Your task to perform on an android device: turn off sleep mode Image 0: 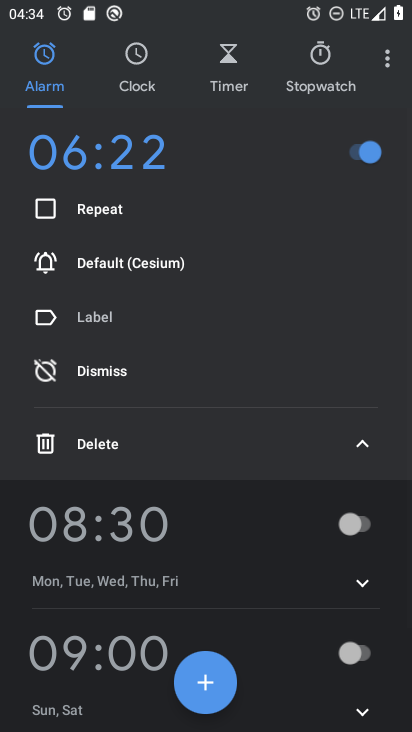
Step 0: press home button
Your task to perform on an android device: turn off sleep mode Image 1: 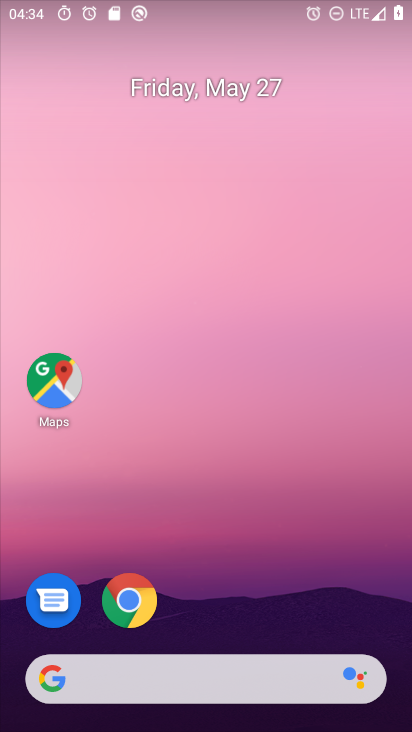
Step 1: drag from (223, 727) to (195, 165)
Your task to perform on an android device: turn off sleep mode Image 2: 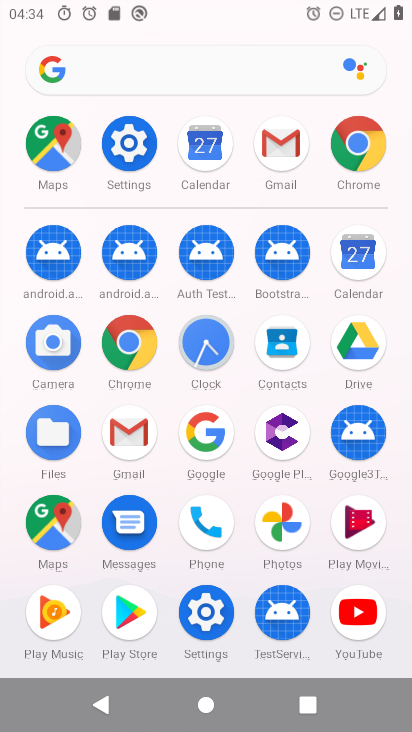
Step 2: click (128, 140)
Your task to perform on an android device: turn off sleep mode Image 3: 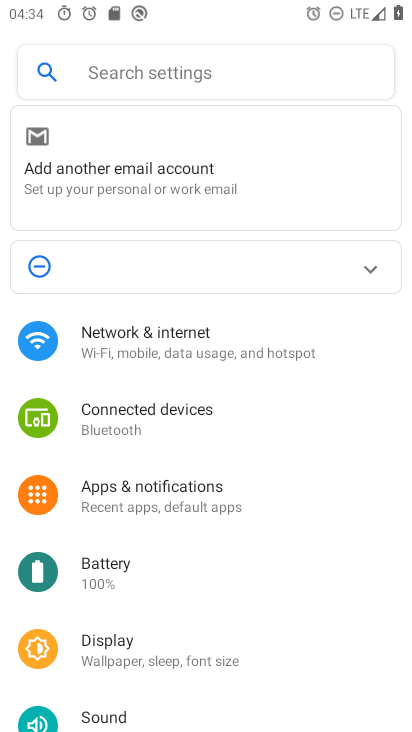
Step 3: drag from (176, 702) to (188, 131)
Your task to perform on an android device: turn off sleep mode Image 4: 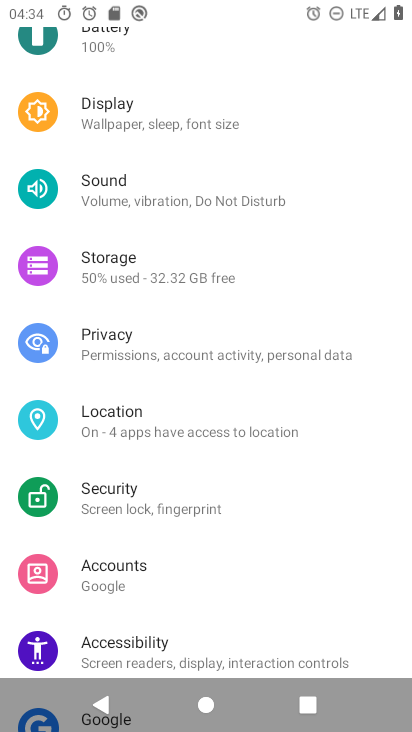
Step 4: drag from (238, 651) to (230, 238)
Your task to perform on an android device: turn off sleep mode Image 5: 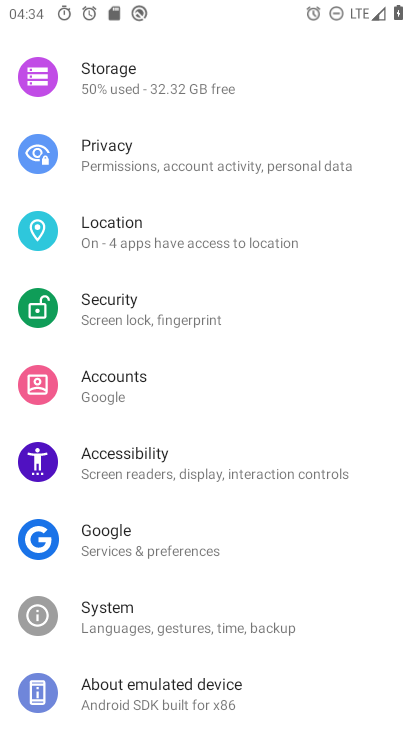
Step 5: drag from (309, 112) to (325, 577)
Your task to perform on an android device: turn off sleep mode Image 6: 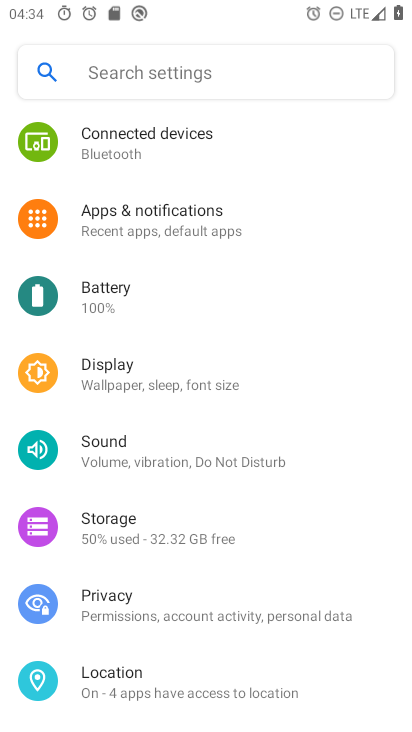
Step 6: click (185, 381)
Your task to perform on an android device: turn off sleep mode Image 7: 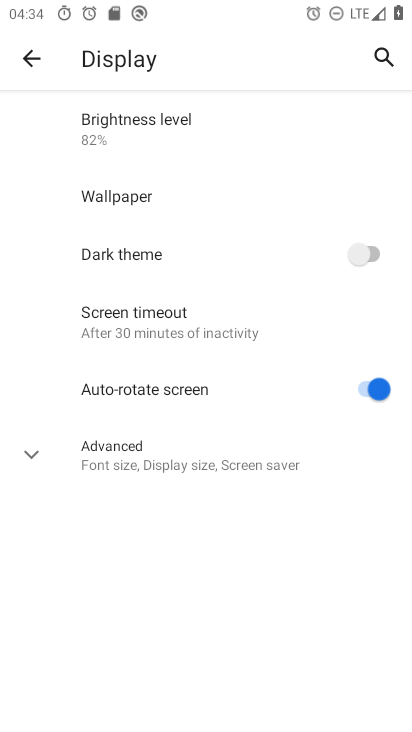
Step 7: task complete